Your task to perform on an android device: What's the weather? Image 0: 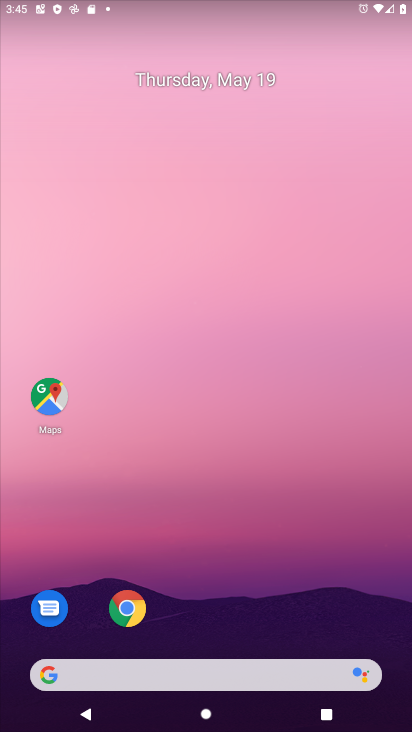
Step 0: drag from (330, 627) to (262, 122)
Your task to perform on an android device: What's the weather? Image 1: 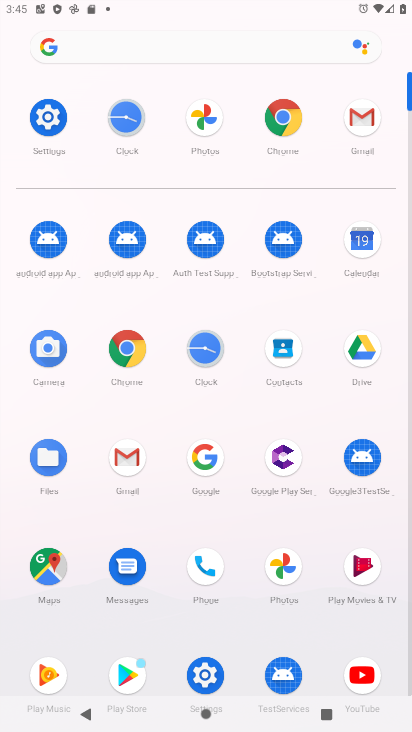
Step 1: click (141, 49)
Your task to perform on an android device: What's the weather? Image 2: 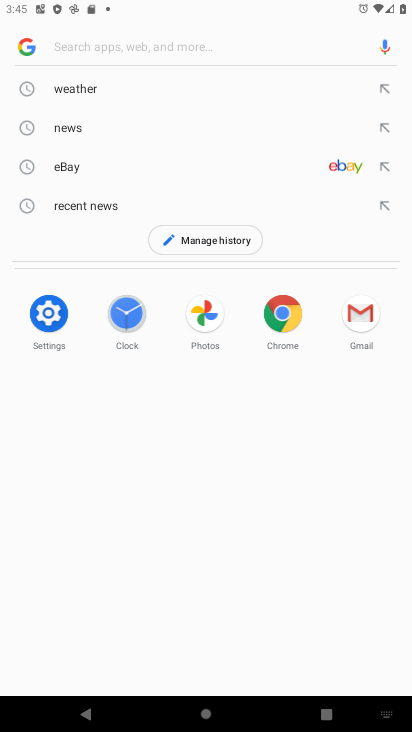
Step 2: click (145, 94)
Your task to perform on an android device: What's the weather? Image 3: 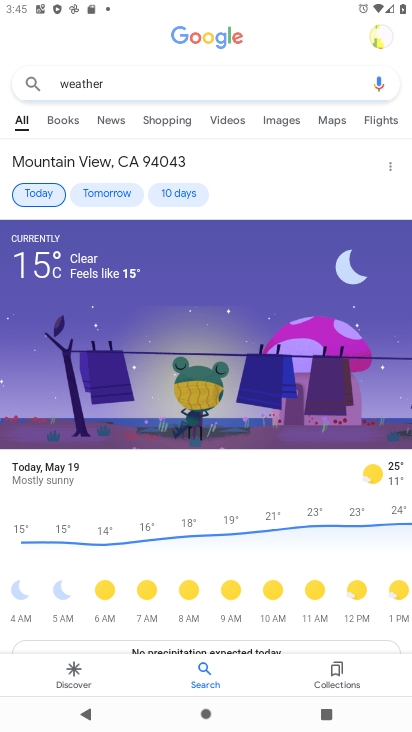
Step 3: task complete